Your task to perform on an android device: Go to settings Image 0: 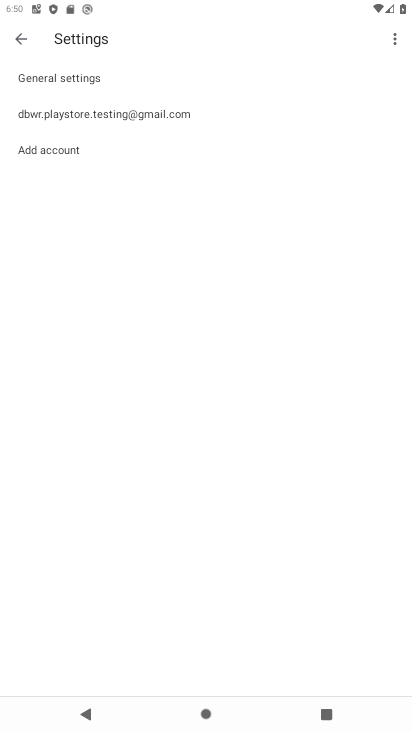
Step 0: drag from (298, 600) to (264, 327)
Your task to perform on an android device: Go to settings Image 1: 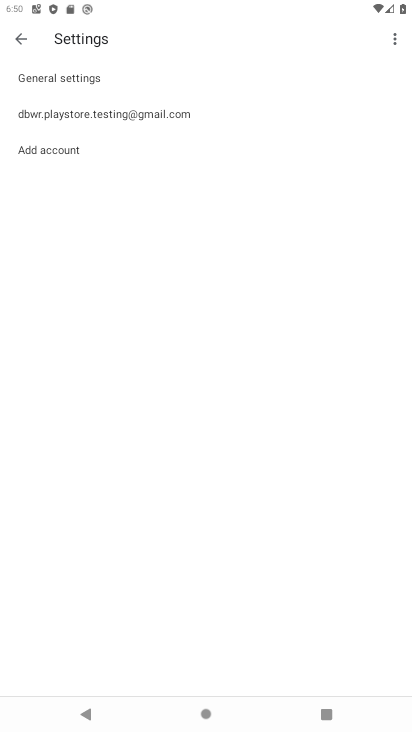
Step 1: press home button
Your task to perform on an android device: Go to settings Image 2: 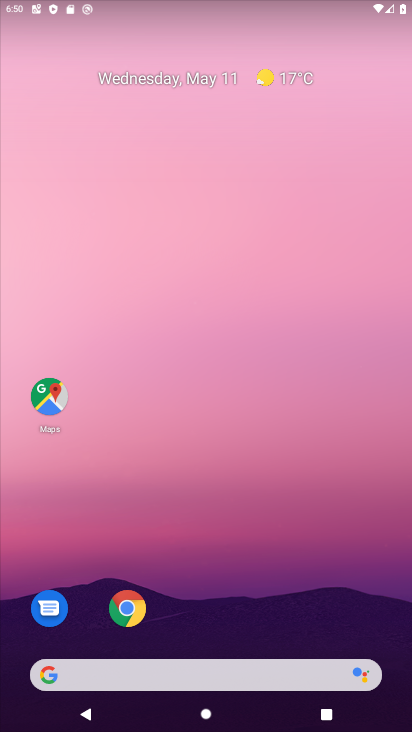
Step 2: drag from (245, 578) to (245, 72)
Your task to perform on an android device: Go to settings Image 3: 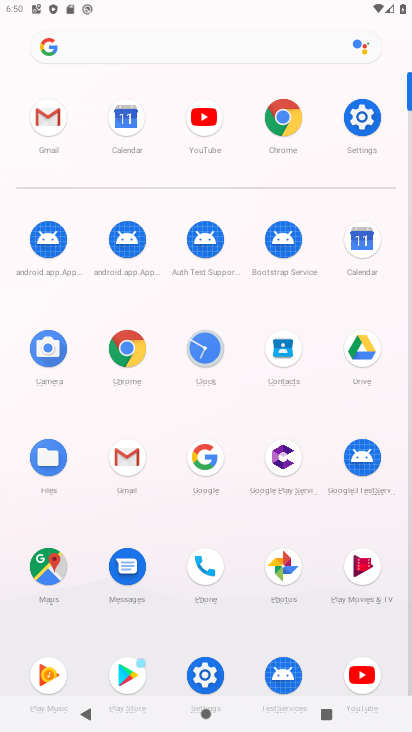
Step 3: click (358, 124)
Your task to perform on an android device: Go to settings Image 4: 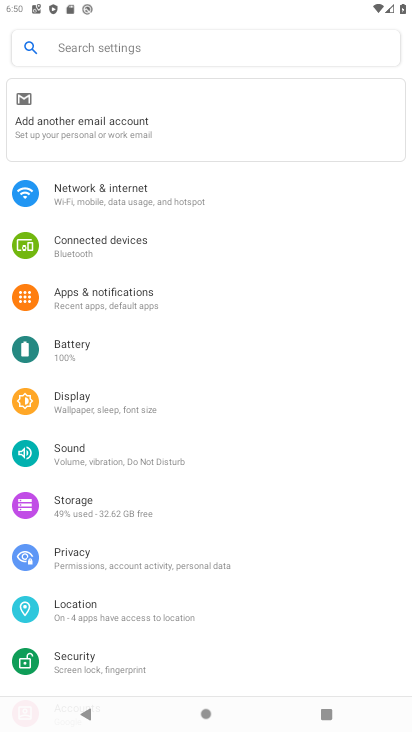
Step 4: task complete